Your task to perform on an android device: Open wifi settings Image 0: 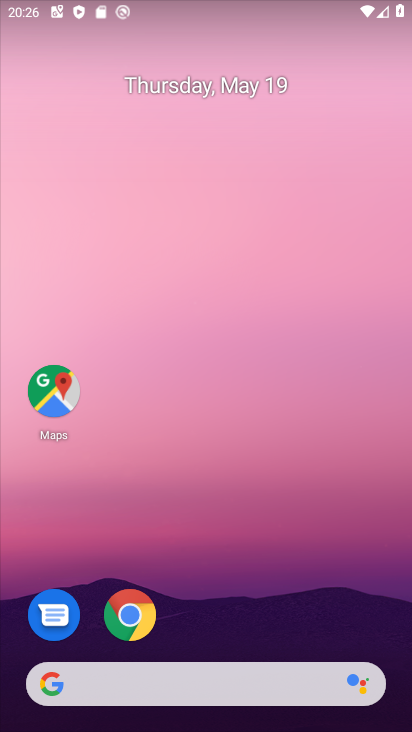
Step 0: drag from (251, 608) to (286, 100)
Your task to perform on an android device: Open wifi settings Image 1: 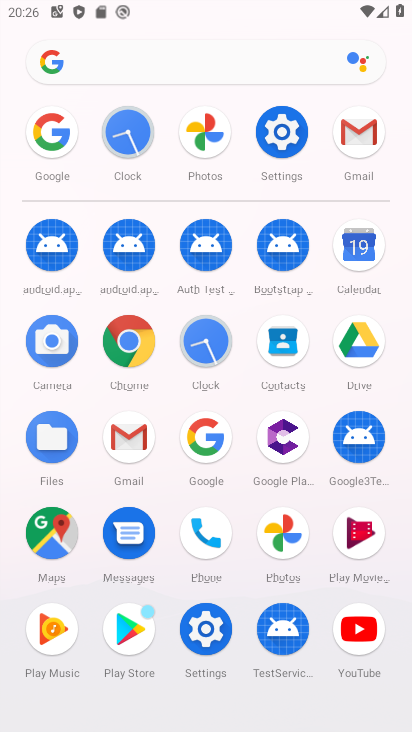
Step 1: click (274, 131)
Your task to perform on an android device: Open wifi settings Image 2: 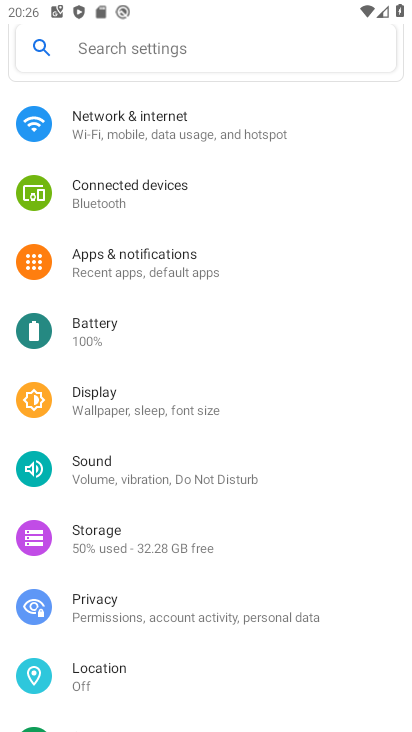
Step 2: click (163, 125)
Your task to perform on an android device: Open wifi settings Image 3: 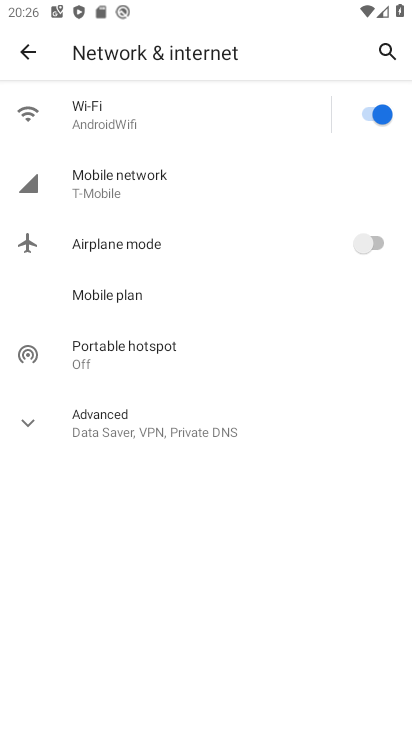
Step 3: click (146, 112)
Your task to perform on an android device: Open wifi settings Image 4: 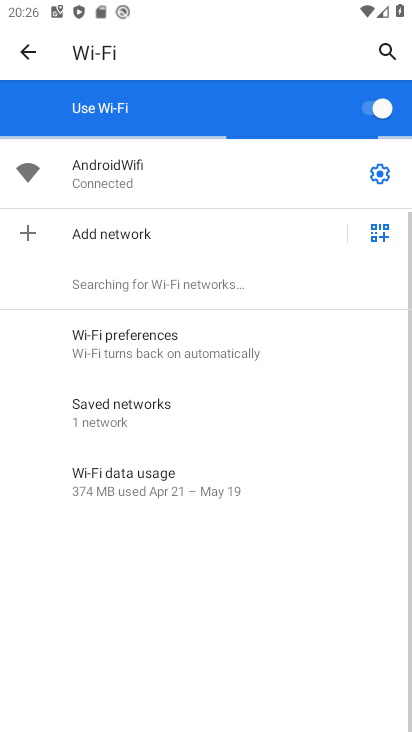
Step 4: click (218, 170)
Your task to perform on an android device: Open wifi settings Image 5: 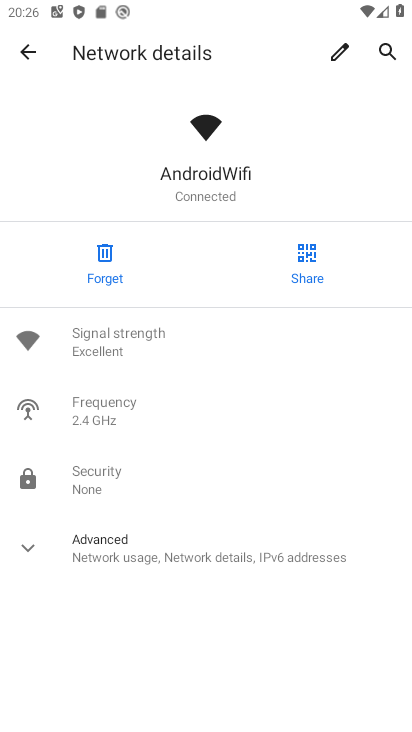
Step 5: task complete